Your task to perform on an android device: Show me popular videos on Youtube Image 0: 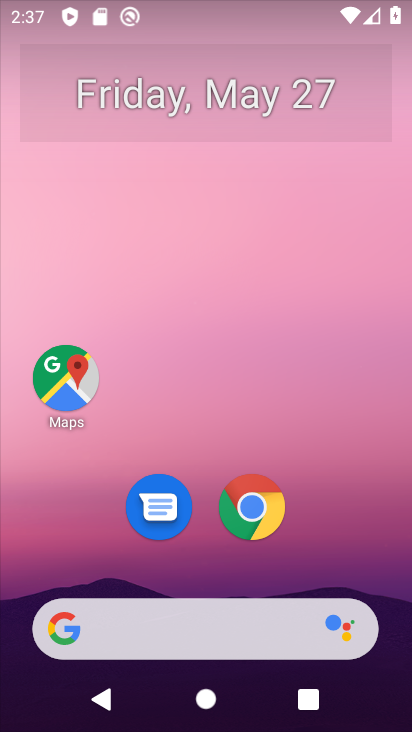
Step 0: drag from (364, 537) to (340, 104)
Your task to perform on an android device: Show me popular videos on Youtube Image 1: 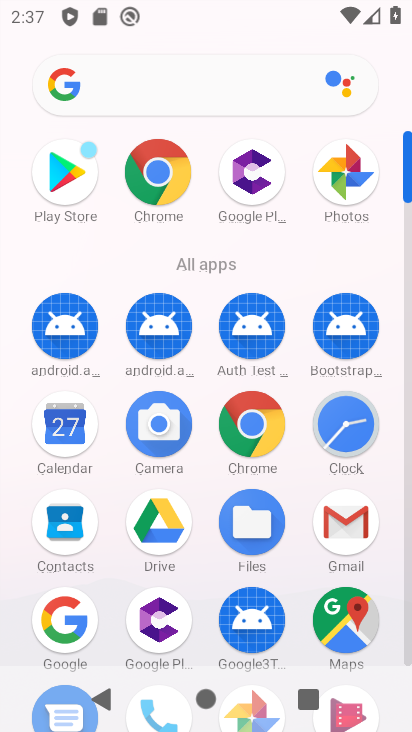
Step 1: drag from (293, 589) to (286, 306)
Your task to perform on an android device: Show me popular videos on Youtube Image 2: 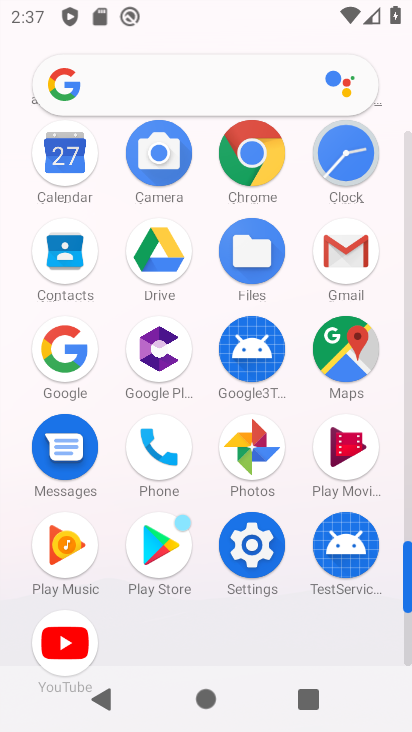
Step 2: click (34, 658)
Your task to perform on an android device: Show me popular videos on Youtube Image 3: 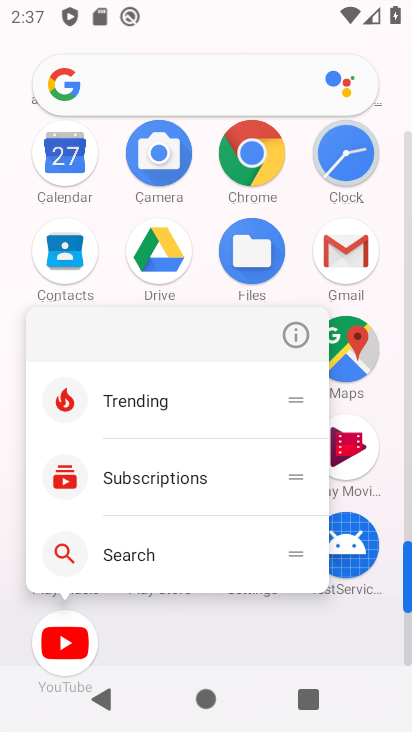
Step 3: click (58, 651)
Your task to perform on an android device: Show me popular videos on Youtube Image 4: 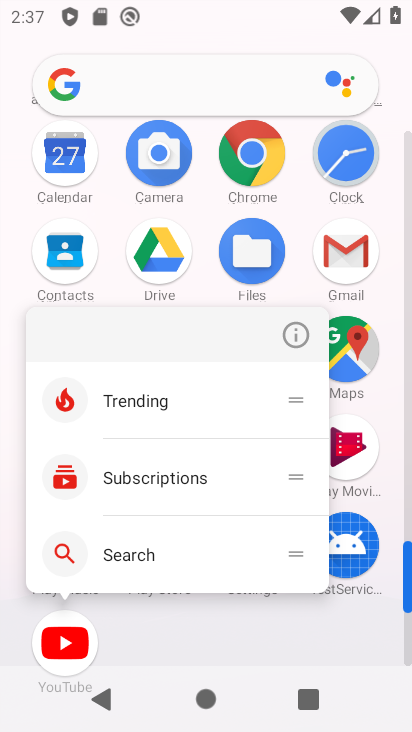
Step 4: click (82, 645)
Your task to perform on an android device: Show me popular videos on Youtube Image 5: 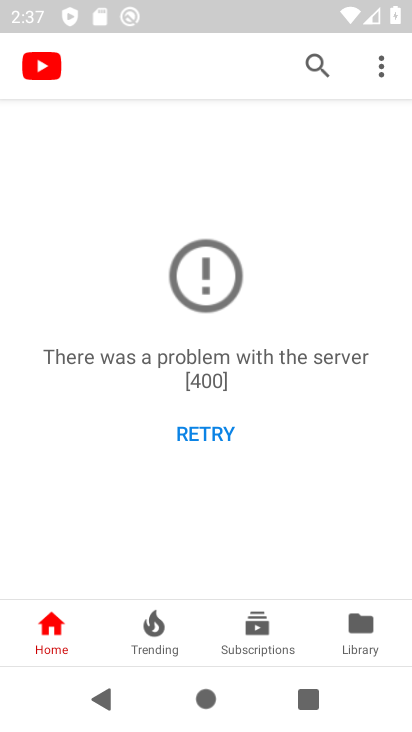
Step 5: click (170, 632)
Your task to perform on an android device: Show me popular videos on Youtube Image 6: 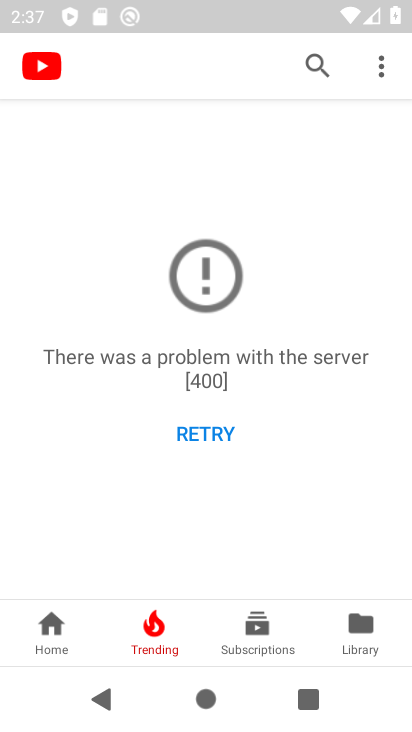
Step 6: task complete